Your task to perform on an android device: open app "DoorDash - Dasher" Image 0: 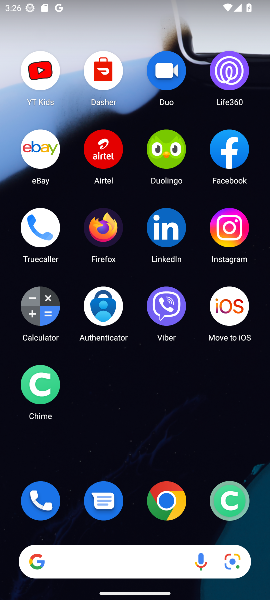
Step 0: drag from (118, 446) to (116, 101)
Your task to perform on an android device: open app "DoorDash - Dasher" Image 1: 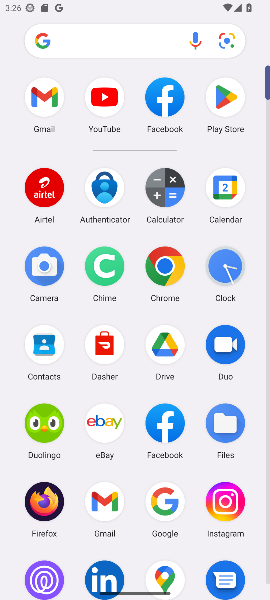
Step 1: click (223, 97)
Your task to perform on an android device: open app "DoorDash - Dasher" Image 2: 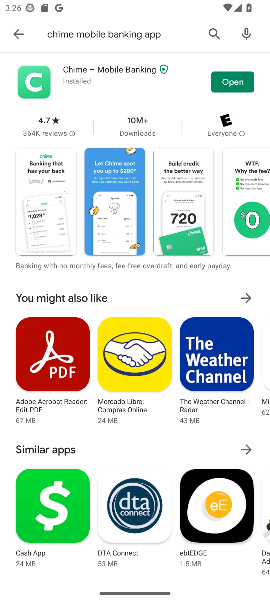
Step 2: click (210, 39)
Your task to perform on an android device: open app "DoorDash - Dasher" Image 3: 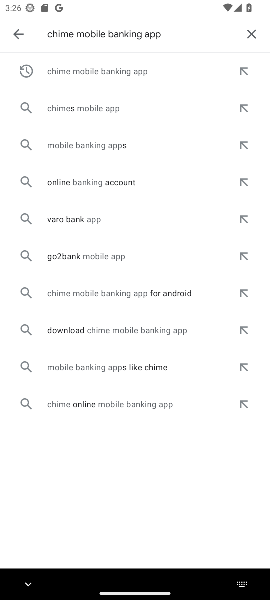
Step 3: click (249, 39)
Your task to perform on an android device: open app "DoorDash - Dasher" Image 4: 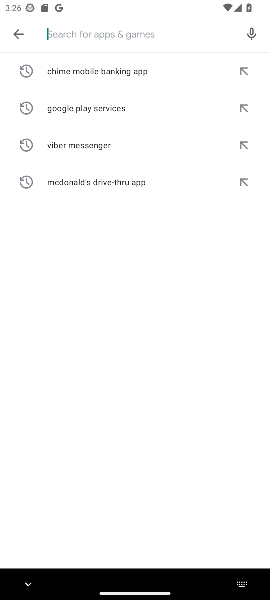
Step 4: type "DoorDash - Dasher"
Your task to perform on an android device: open app "DoorDash - Dasher" Image 5: 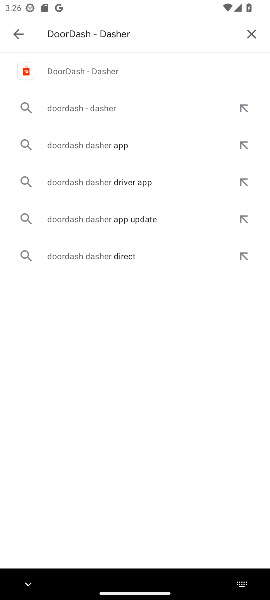
Step 5: click (79, 74)
Your task to perform on an android device: open app "DoorDash - Dasher" Image 6: 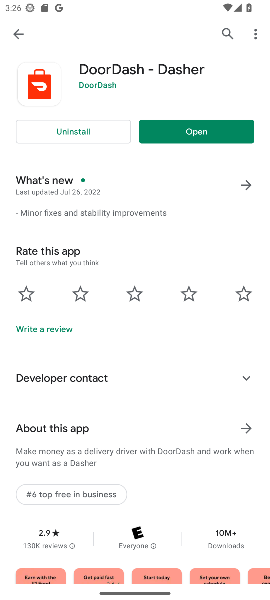
Step 6: click (177, 128)
Your task to perform on an android device: open app "DoorDash - Dasher" Image 7: 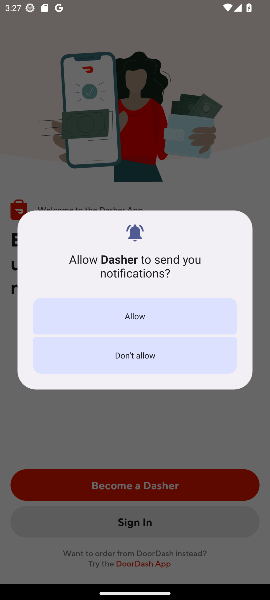
Step 7: task complete